Your task to perform on an android device: Open the Play Movies app and select the watchlist tab. Image 0: 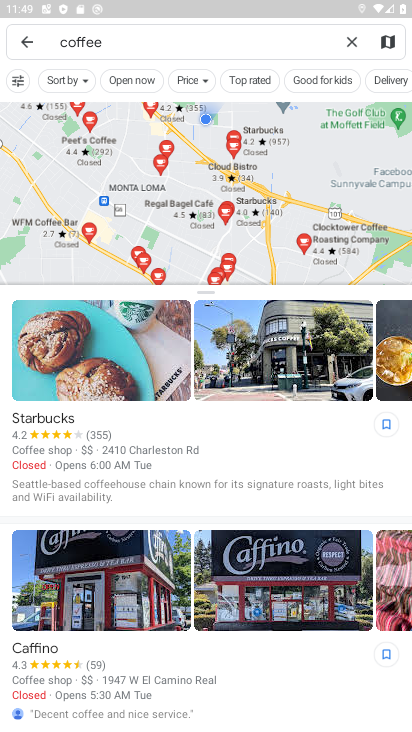
Step 0: press home button
Your task to perform on an android device: Open the Play Movies app and select the watchlist tab. Image 1: 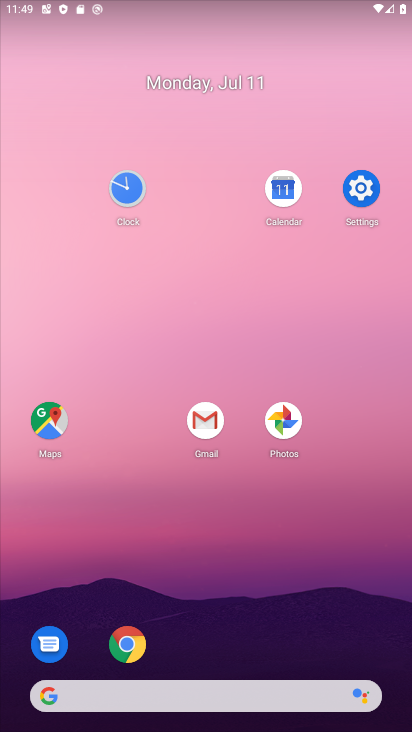
Step 1: drag from (319, 584) to (291, 180)
Your task to perform on an android device: Open the Play Movies app and select the watchlist tab. Image 2: 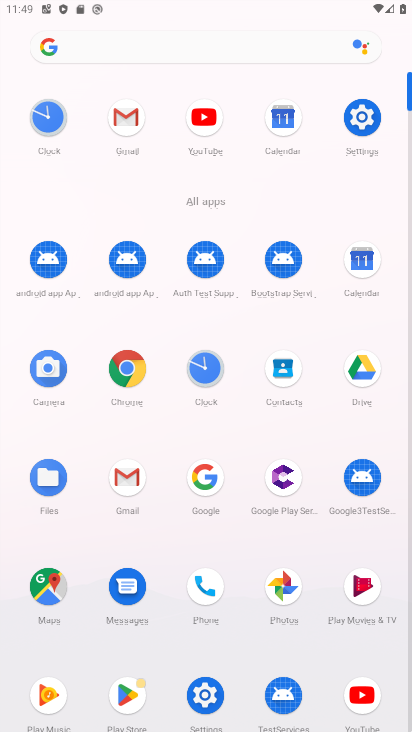
Step 2: click (350, 583)
Your task to perform on an android device: Open the Play Movies app and select the watchlist tab. Image 3: 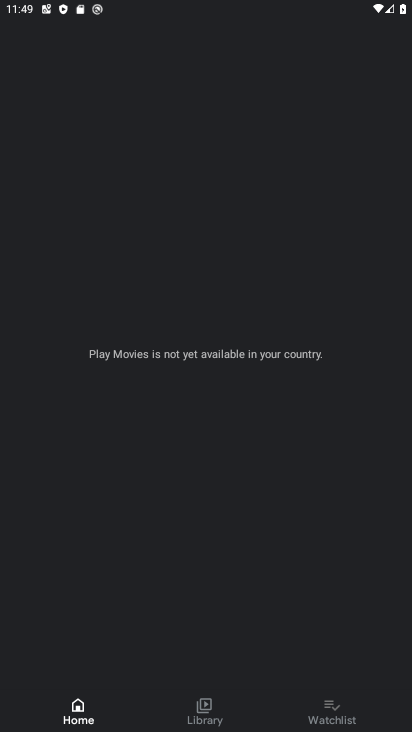
Step 3: click (330, 699)
Your task to perform on an android device: Open the Play Movies app and select the watchlist tab. Image 4: 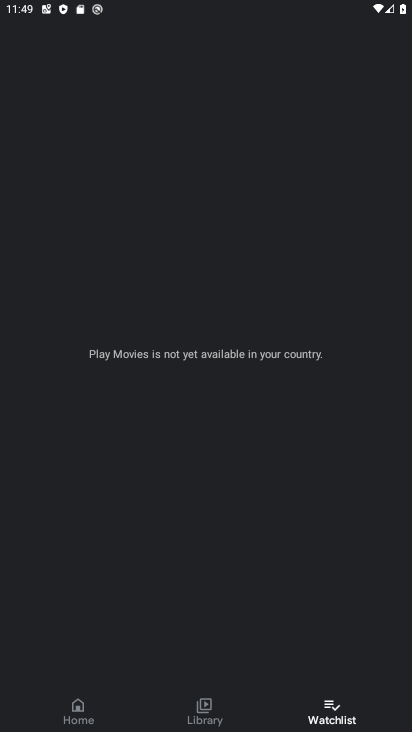
Step 4: task complete